Your task to perform on an android device: View the shopping cart on walmart.com. Add razer nari to the cart on walmart.com, then select checkout. Image 0: 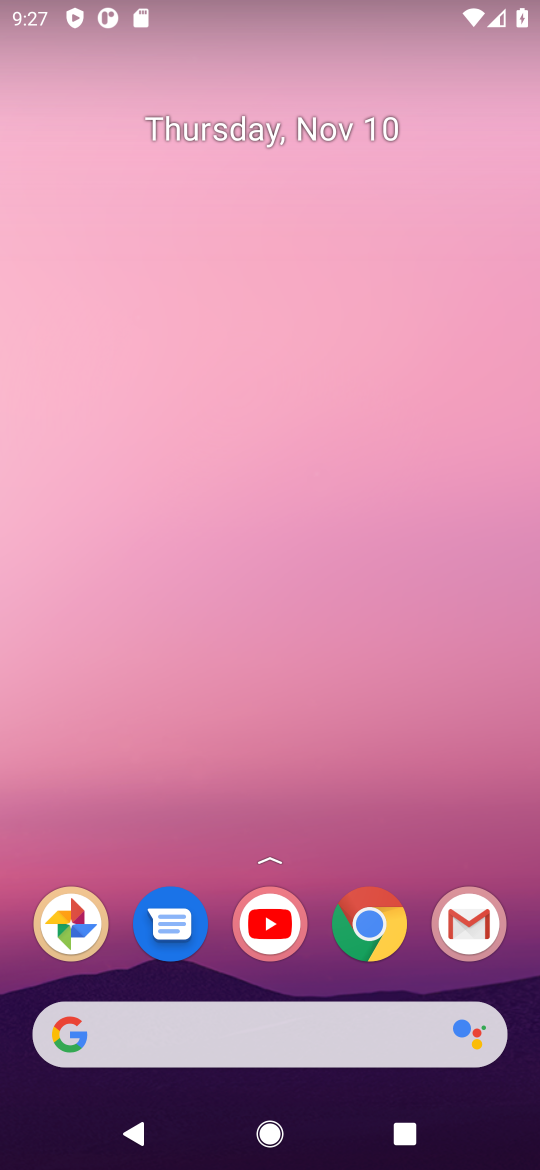
Step 0: click (373, 925)
Your task to perform on an android device: View the shopping cart on walmart.com. Add razer nari to the cart on walmart.com, then select checkout. Image 1: 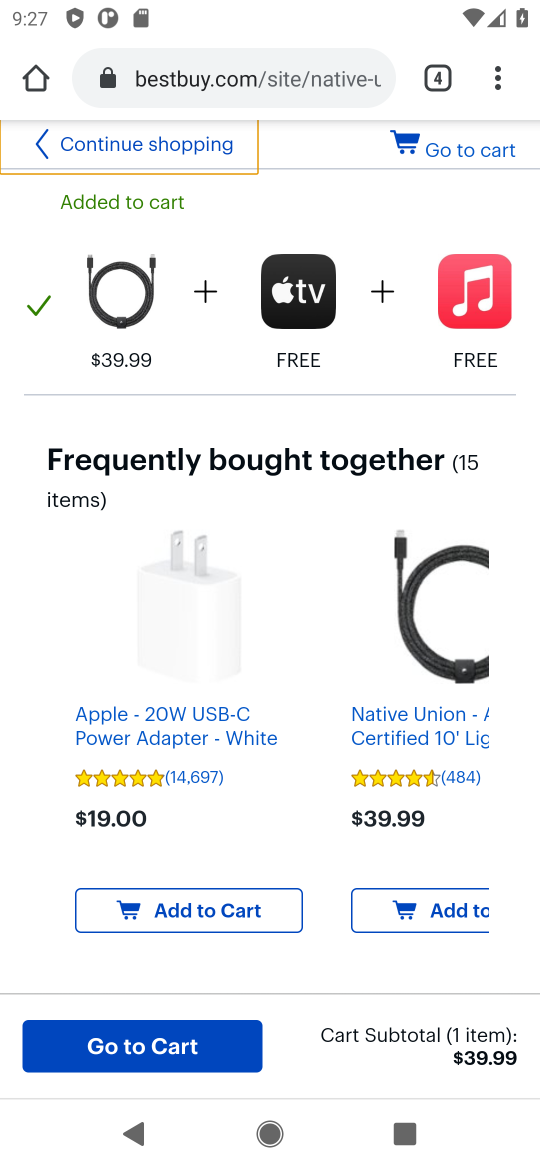
Step 1: click (182, 83)
Your task to perform on an android device: View the shopping cart on walmart.com. Add razer nari to the cart on walmart.com, then select checkout. Image 2: 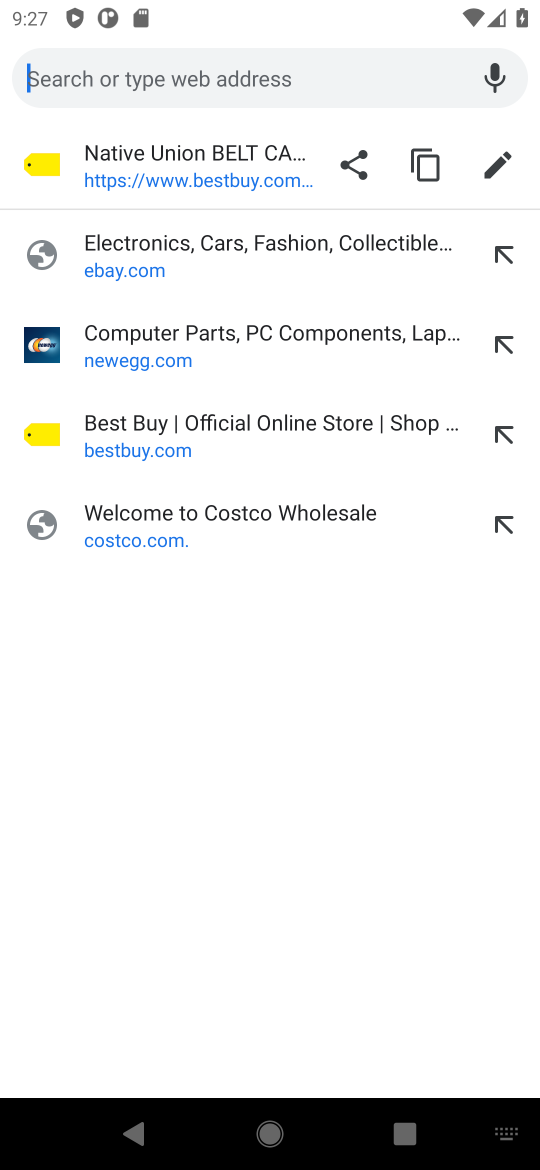
Step 2: type "walmaert.com"
Your task to perform on an android device: View the shopping cart on walmart.com. Add razer nari to the cart on walmart.com, then select checkout. Image 3: 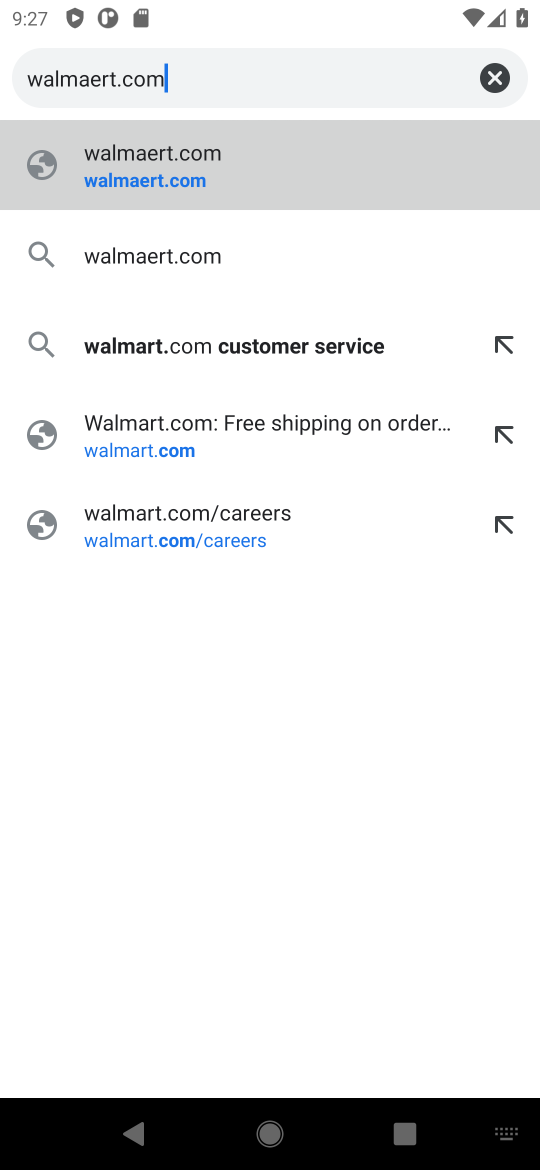
Step 3: click (506, 78)
Your task to perform on an android device: View the shopping cart on walmart.com. Add razer nari to the cart on walmart.com, then select checkout. Image 4: 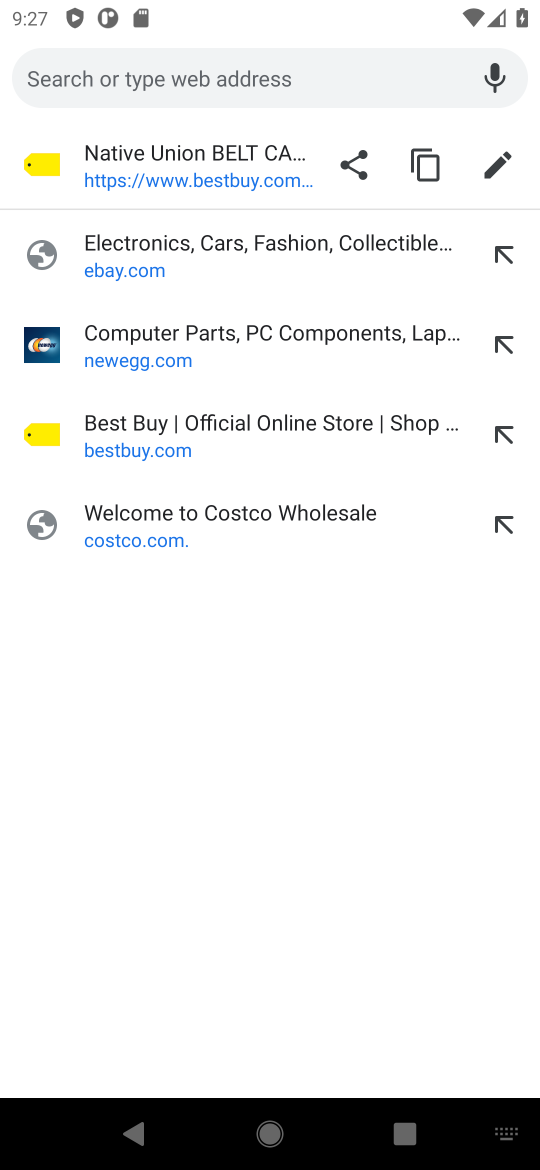
Step 4: type "walmart.com"
Your task to perform on an android device: View the shopping cart on walmart.com. Add razer nari to the cart on walmart.com, then select checkout. Image 5: 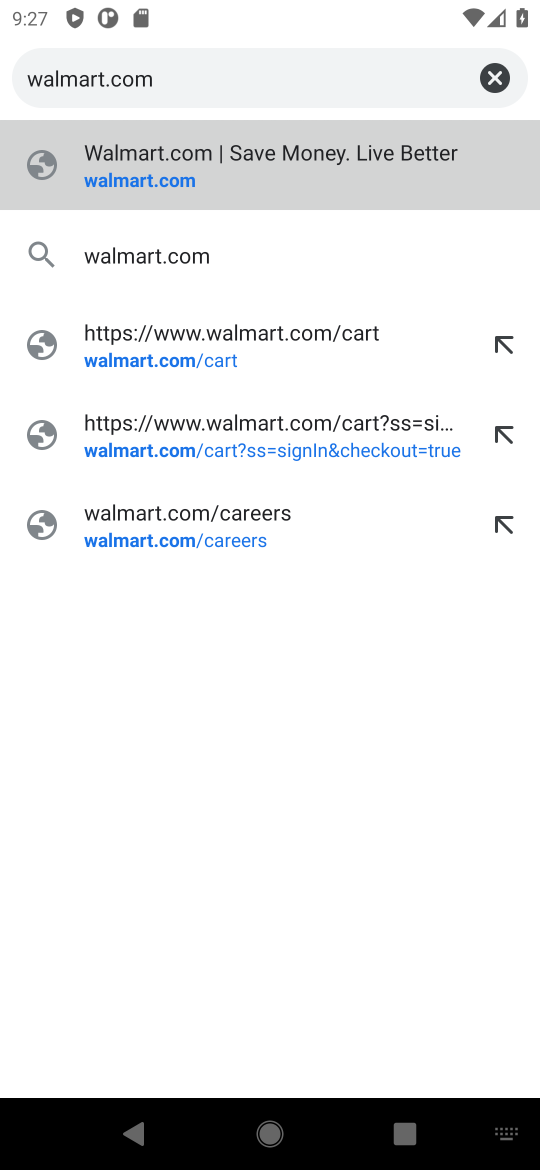
Step 5: click (129, 181)
Your task to perform on an android device: View the shopping cart on walmart.com. Add razer nari to the cart on walmart.com, then select checkout. Image 6: 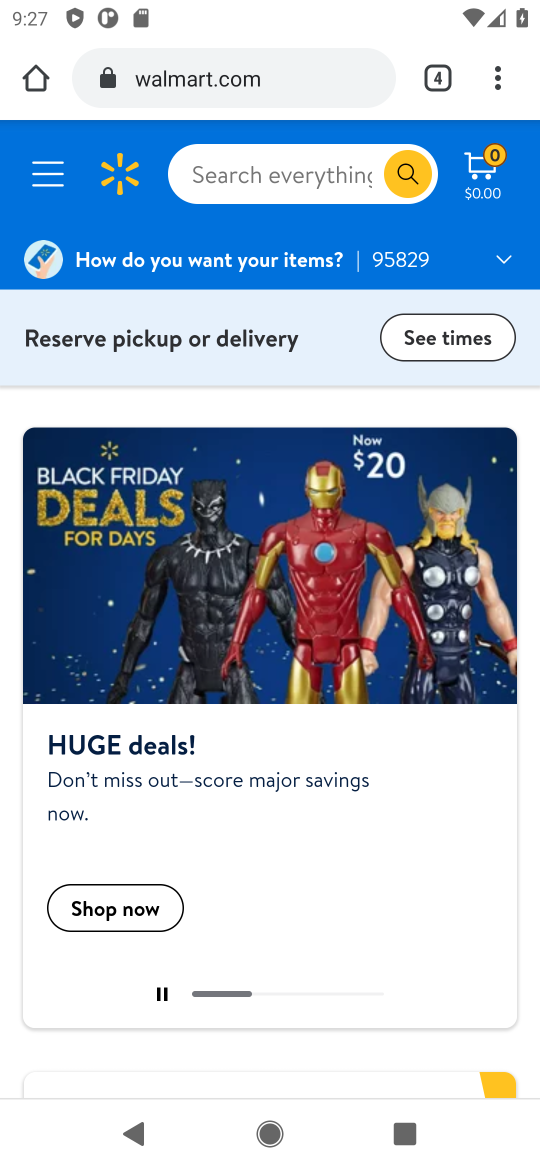
Step 6: click (485, 181)
Your task to perform on an android device: View the shopping cart on walmart.com. Add razer nari to the cart on walmart.com, then select checkout. Image 7: 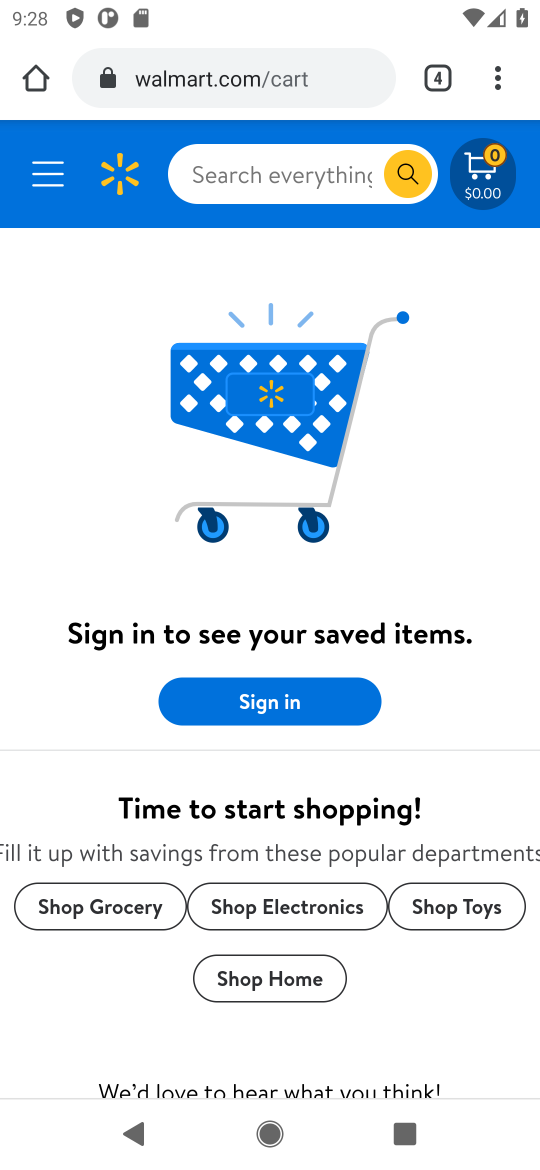
Step 7: click (247, 185)
Your task to perform on an android device: View the shopping cart on walmart.com. Add razer nari to the cart on walmart.com, then select checkout. Image 8: 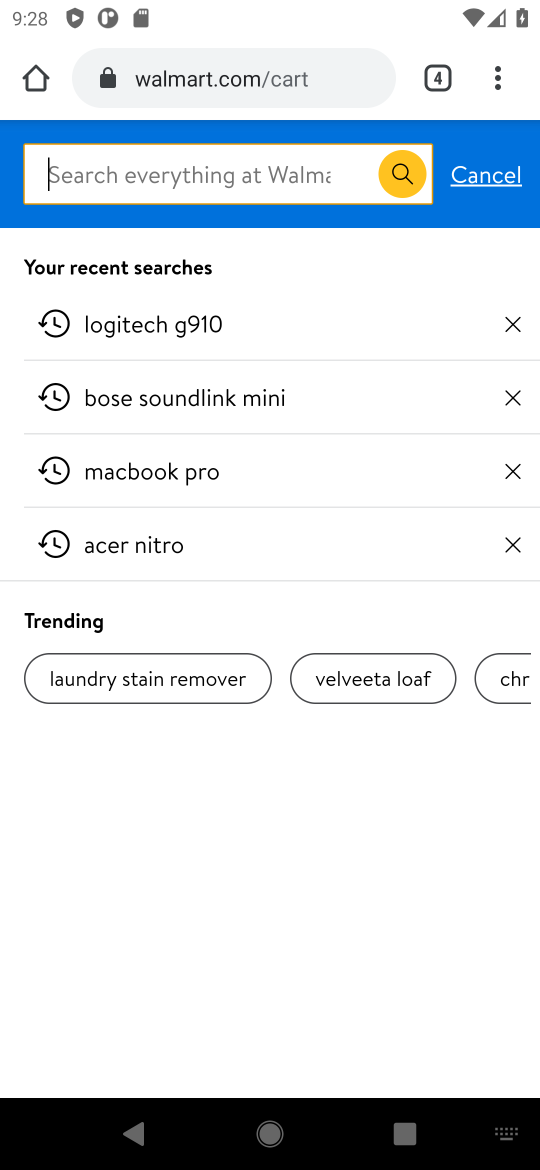
Step 8: type "razer nari "
Your task to perform on an android device: View the shopping cart on walmart.com. Add razer nari to the cart on walmart.com, then select checkout. Image 9: 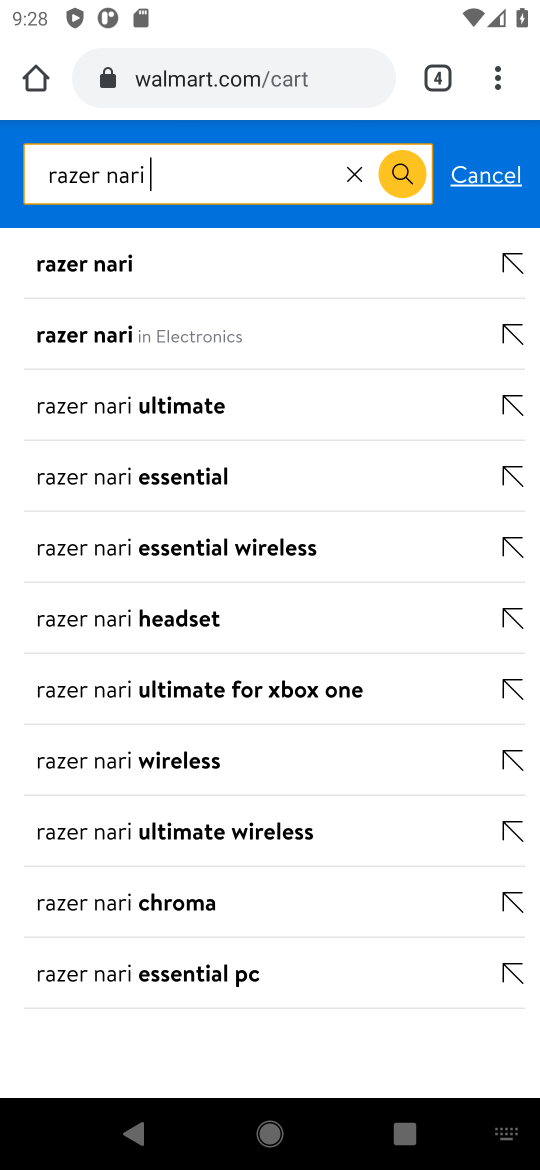
Step 9: click (77, 285)
Your task to perform on an android device: View the shopping cart on walmart.com. Add razer nari to the cart on walmart.com, then select checkout. Image 10: 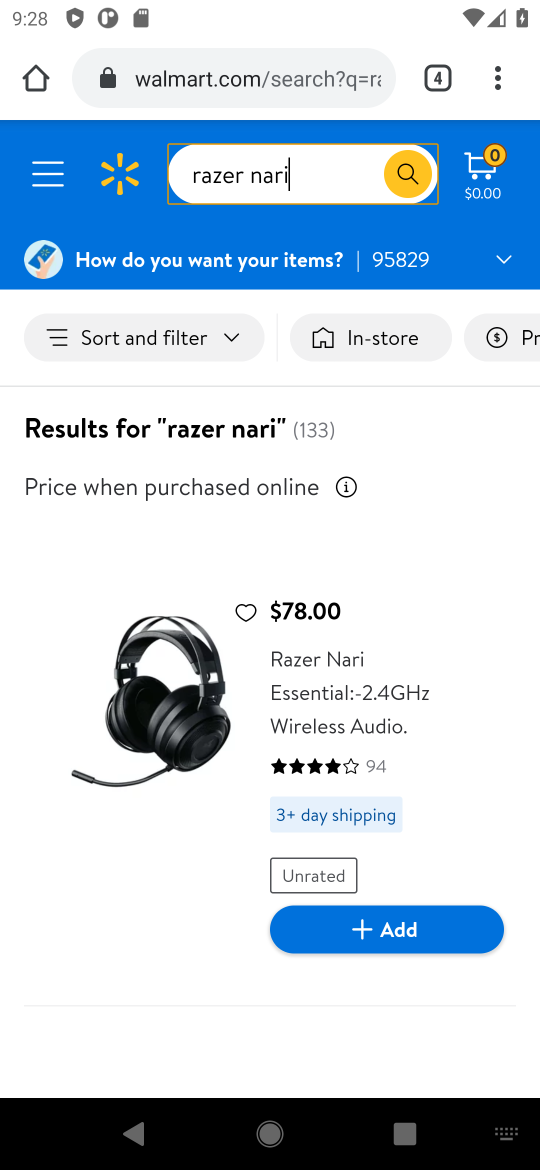
Step 10: drag from (154, 705) to (174, 521)
Your task to perform on an android device: View the shopping cart on walmart.com. Add razer nari to the cart on walmart.com, then select checkout. Image 11: 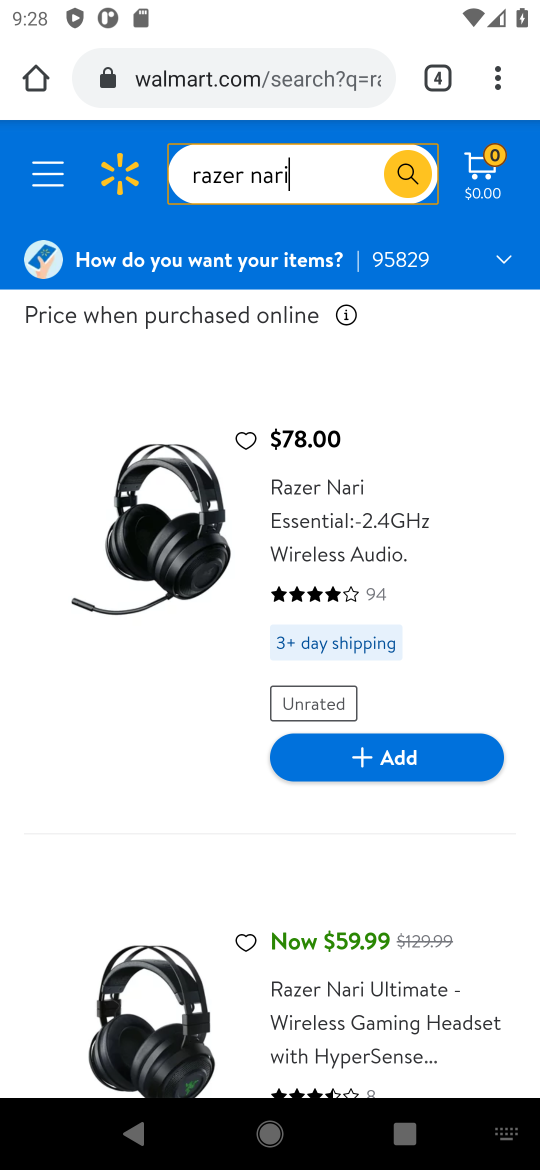
Step 11: click (385, 755)
Your task to perform on an android device: View the shopping cart on walmart.com. Add razer nari to the cart on walmart.com, then select checkout. Image 12: 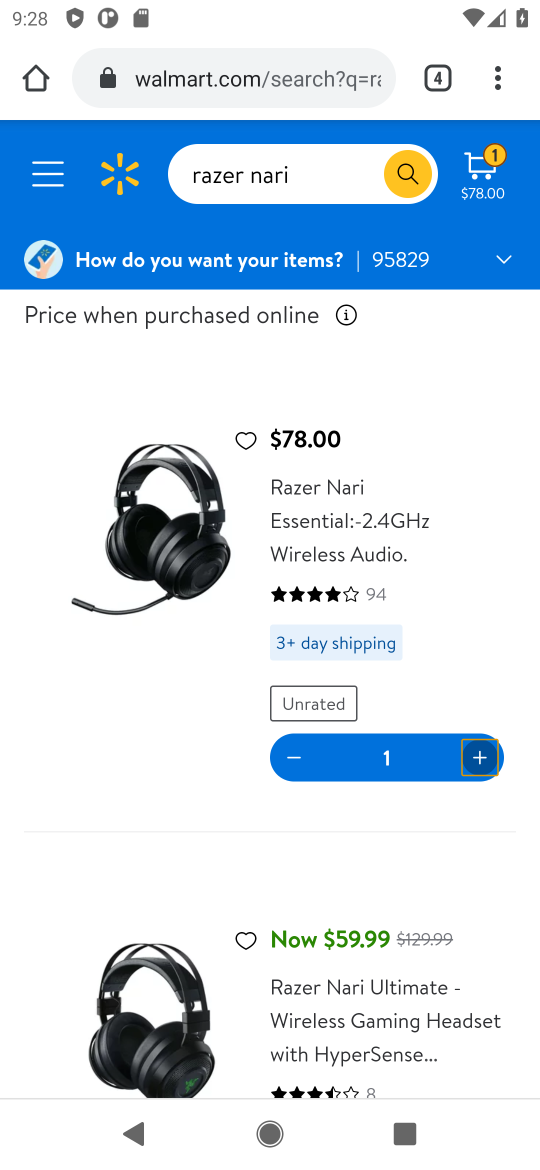
Step 12: click (481, 183)
Your task to perform on an android device: View the shopping cart on walmart.com. Add razer nari to the cart on walmart.com, then select checkout. Image 13: 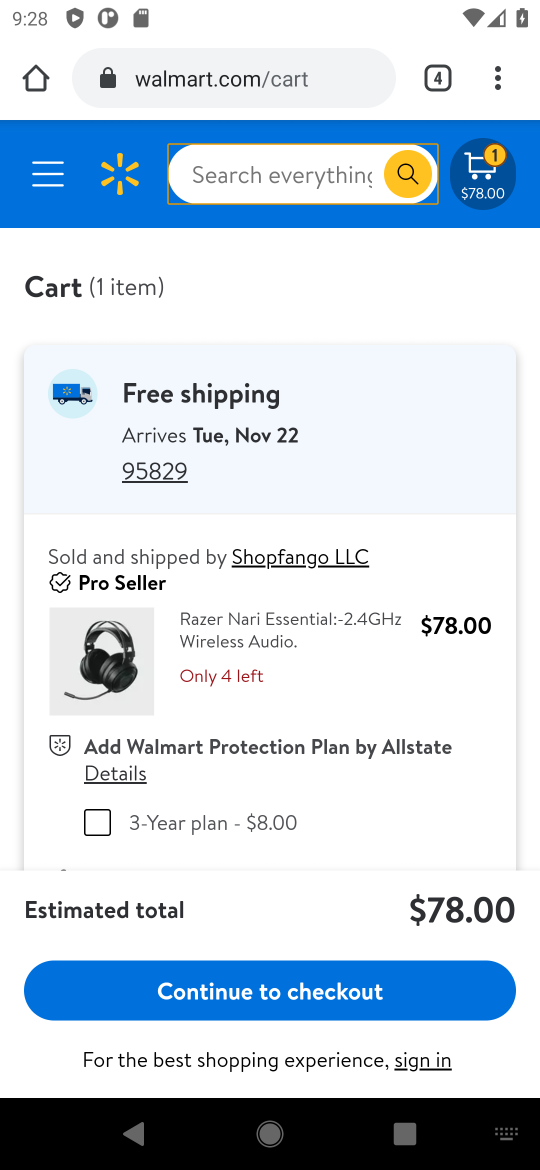
Step 13: click (301, 1005)
Your task to perform on an android device: View the shopping cart on walmart.com. Add razer nari to the cart on walmart.com, then select checkout. Image 14: 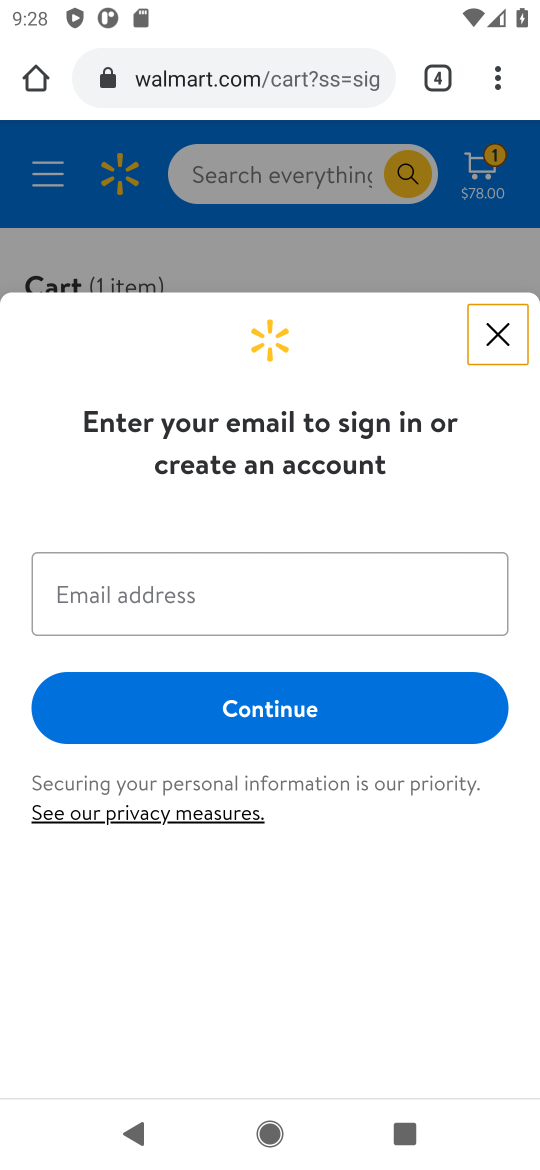
Step 14: task complete